Your task to perform on an android device: add a label to a message in the gmail app Image 0: 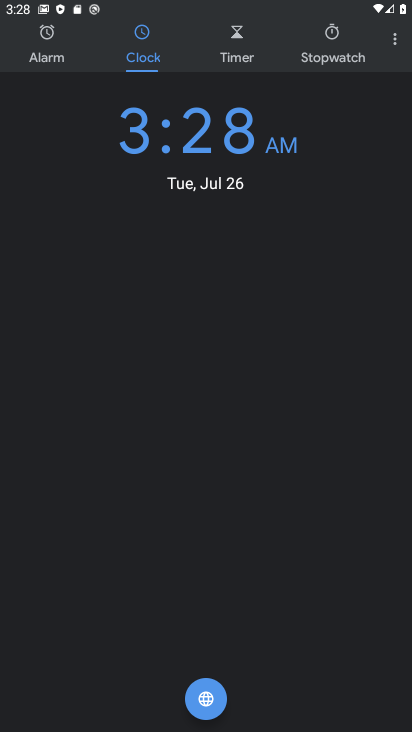
Step 0: press home button
Your task to perform on an android device: add a label to a message in the gmail app Image 1: 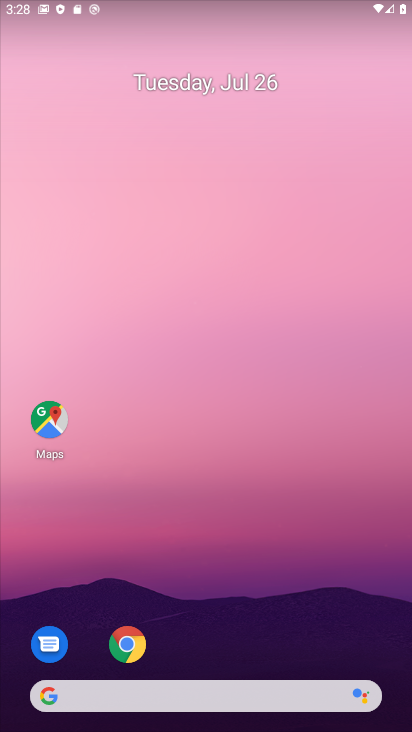
Step 1: drag from (390, 669) to (333, 194)
Your task to perform on an android device: add a label to a message in the gmail app Image 2: 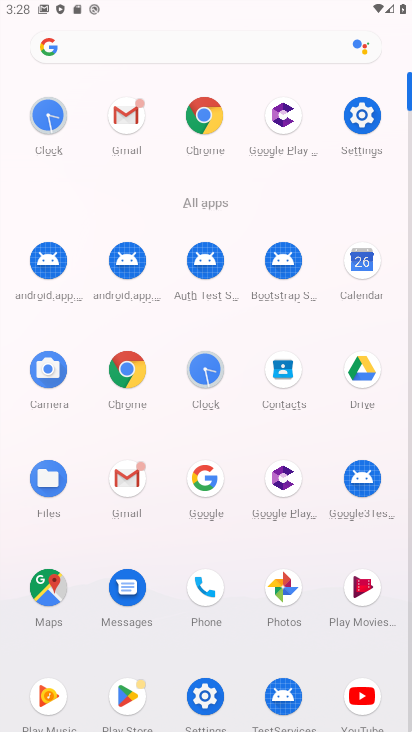
Step 2: click (127, 479)
Your task to perform on an android device: add a label to a message in the gmail app Image 3: 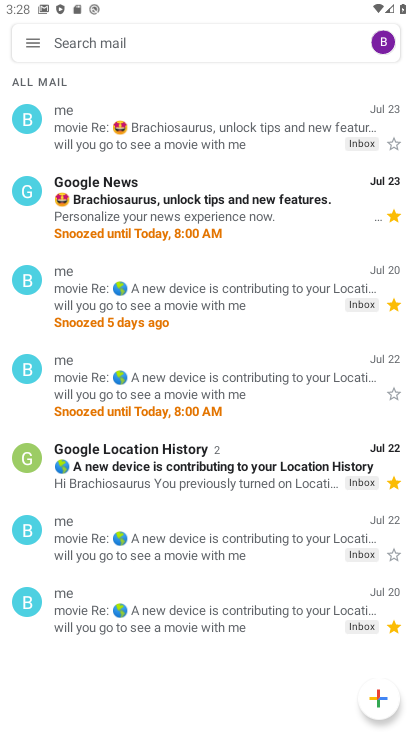
Step 3: click (203, 549)
Your task to perform on an android device: add a label to a message in the gmail app Image 4: 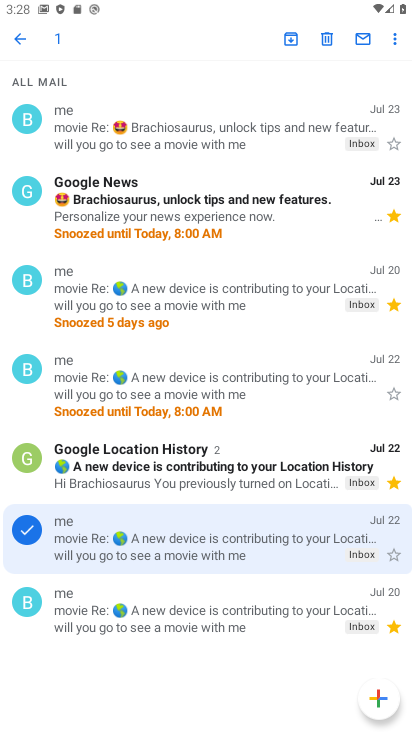
Step 4: click (392, 43)
Your task to perform on an android device: add a label to a message in the gmail app Image 5: 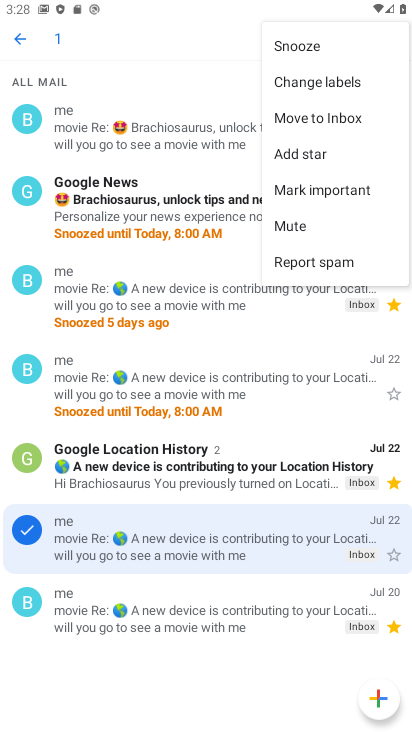
Step 5: click (307, 82)
Your task to perform on an android device: add a label to a message in the gmail app Image 6: 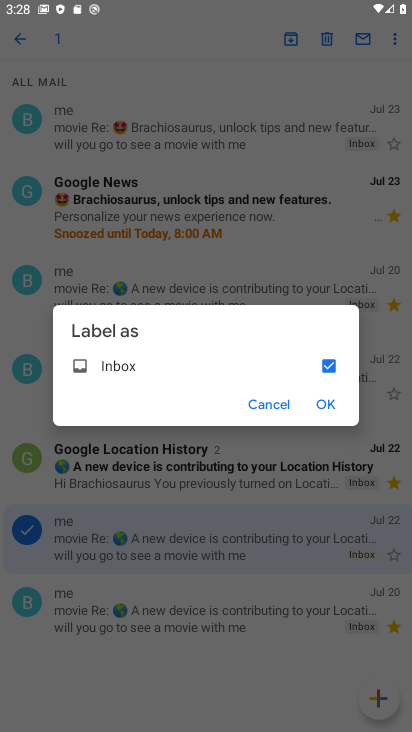
Step 6: click (325, 402)
Your task to perform on an android device: add a label to a message in the gmail app Image 7: 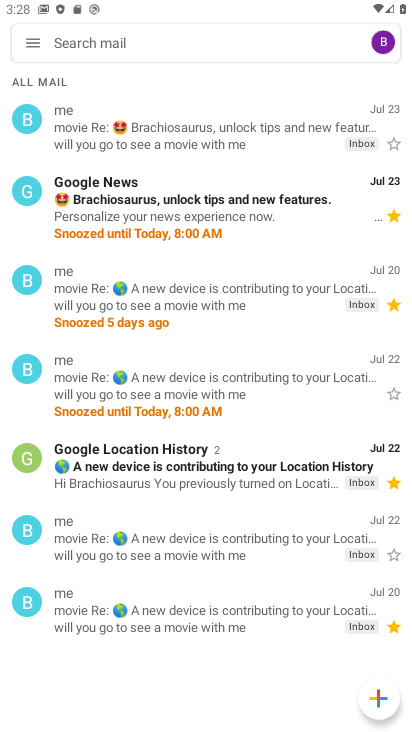
Step 7: task complete